Your task to perform on an android device: turn notification dots on Image 0: 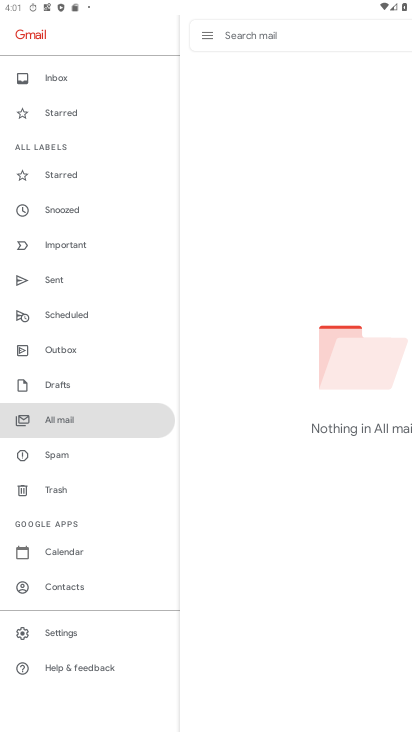
Step 0: press home button
Your task to perform on an android device: turn notification dots on Image 1: 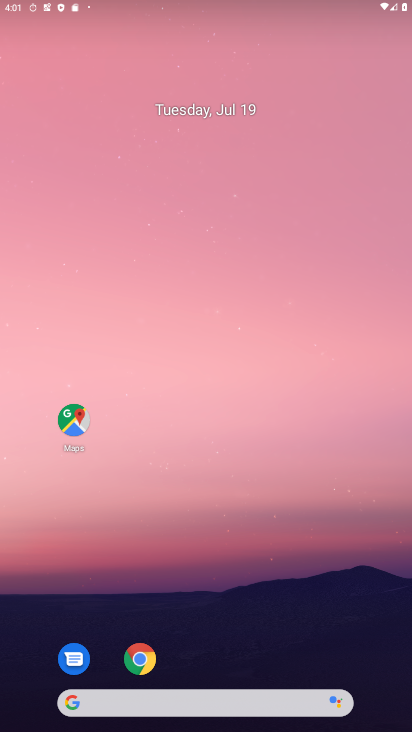
Step 1: drag from (311, 649) to (340, 65)
Your task to perform on an android device: turn notification dots on Image 2: 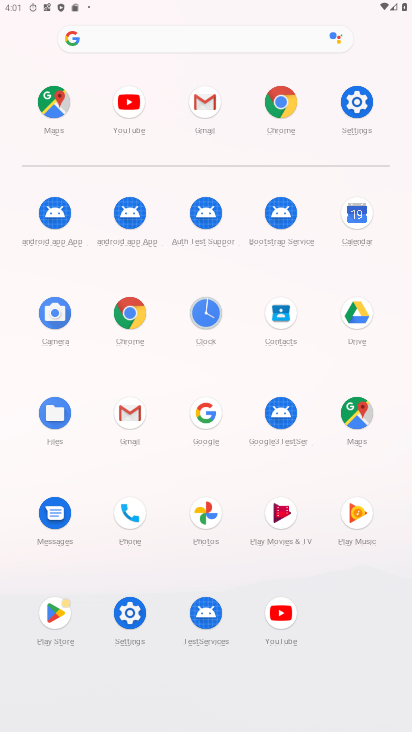
Step 2: click (358, 97)
Your task to perform on an android device: turn notification dots on Image 3: 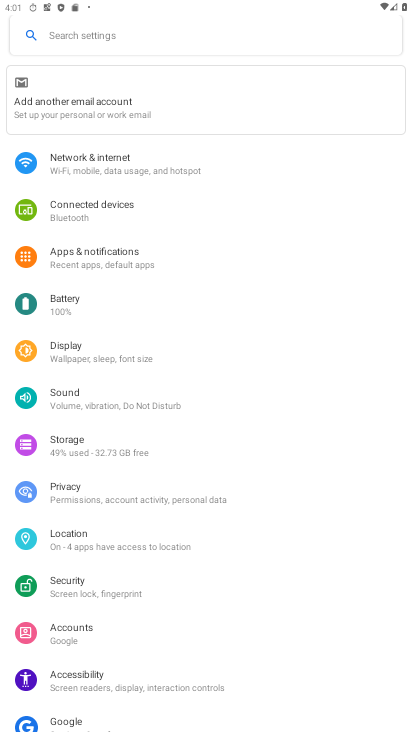
Step 3: click (134, 253)
Your task to perform on an android device: turn notification dots on Image 4: 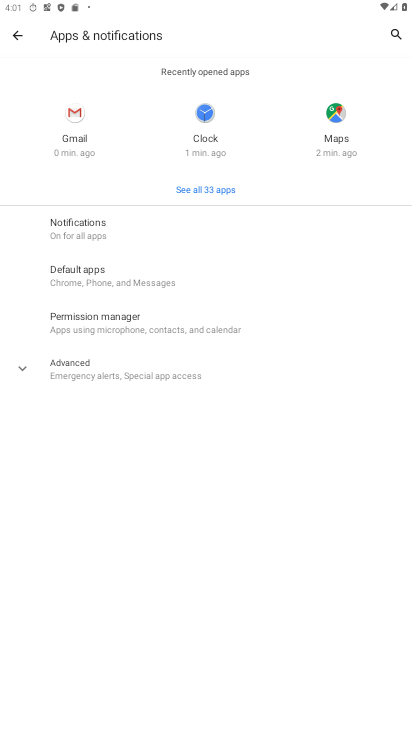
Step 4: click (69, 372)
Your task to perform on an android device: turn notification dots on Image 5: 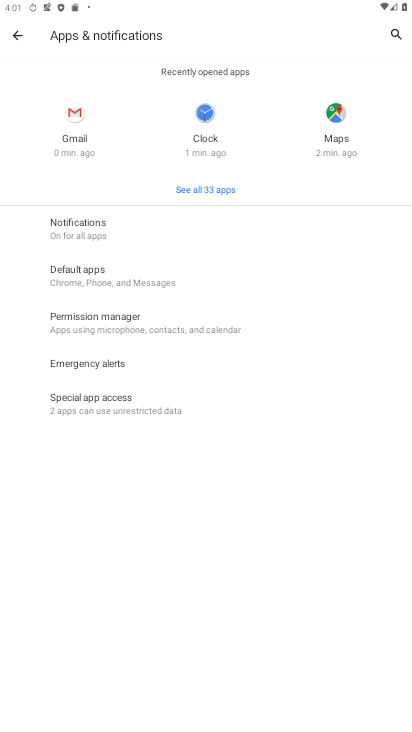
Step 5: click (84, 228)
Your task to perform on an android device: turn notification dots on Image 6: 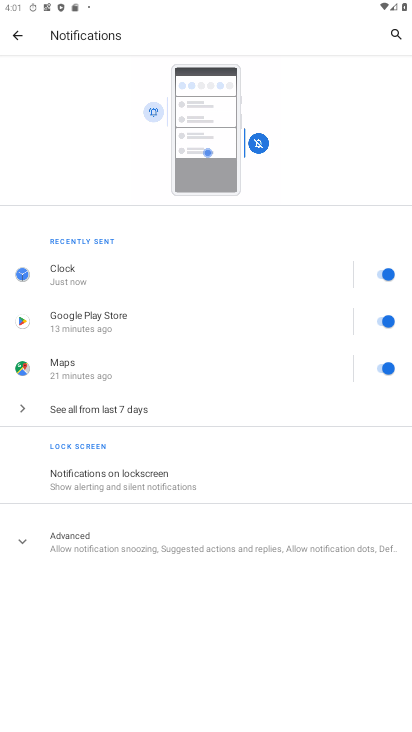
Step 6: click (78, 541)
Your task to perform on an android device: turn notification dots on Image 7: 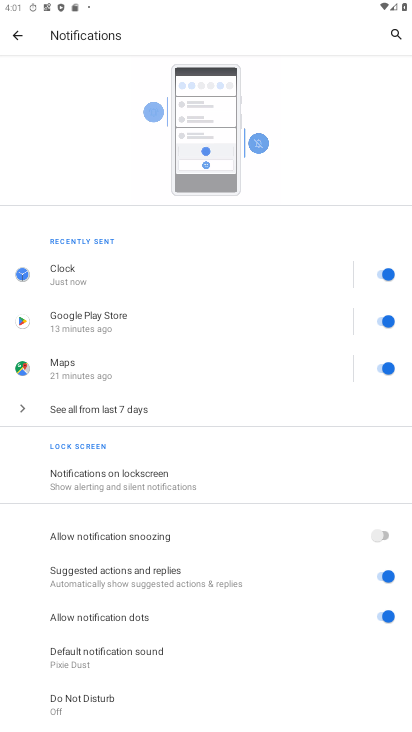
Step 7: task complete